Your task to perform on an android device: Do I have any events today? Image 0: 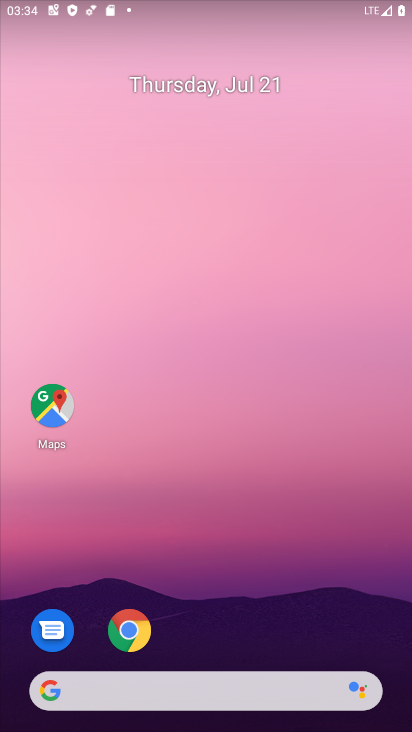
Step 0: click (195, 102)
Your task to perform on an android device: Do I have any events today? Image 1: 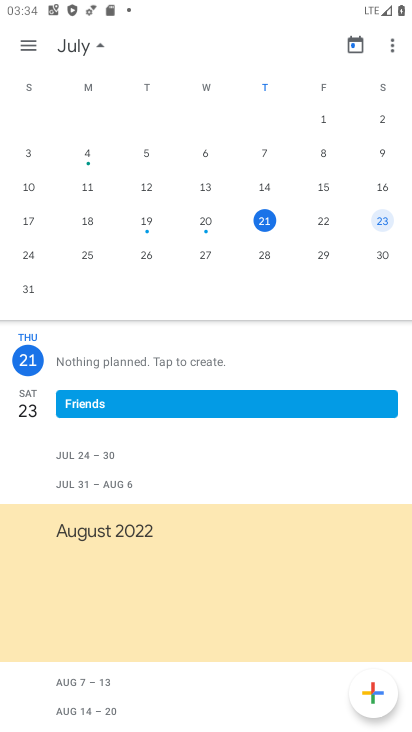
Step 1: task complete